Your task to perform on an android device: Is it going to rain tomorrow? Image 0: 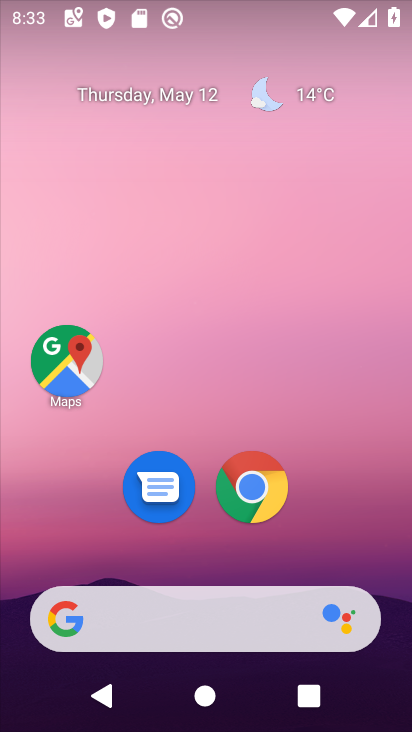
Step 0: click (313, 94)
Your task to perform on an android device: Is it going to rain tomorrow? Image 1: 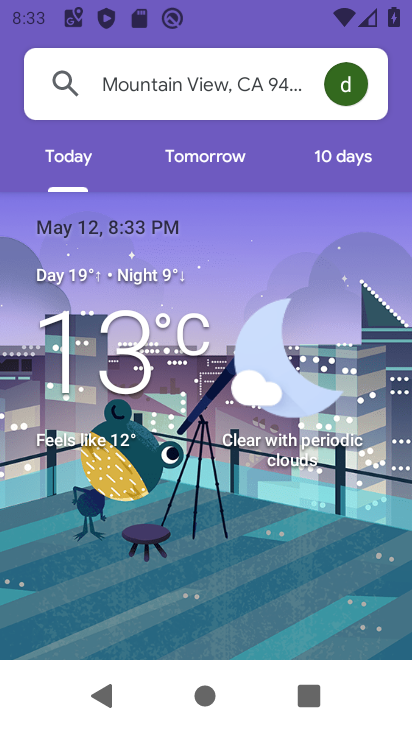
Step 1: click (216, 162)
Your task to perform on an android device: Is it going to rain tomorrow? Image 2: 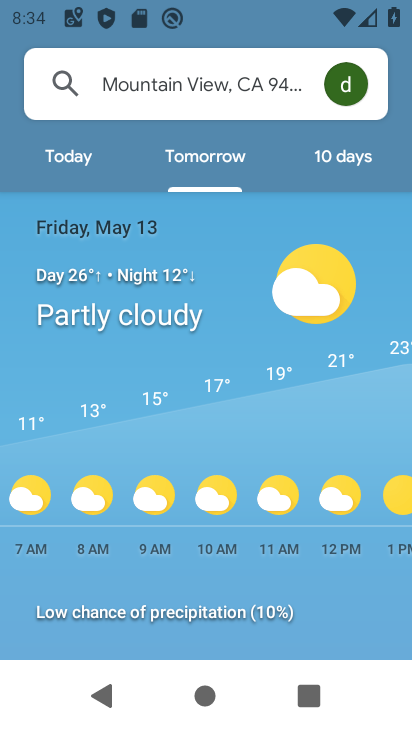
Step 2: task complete